Your task to perform on an android device: Open CNN.com Image 0: 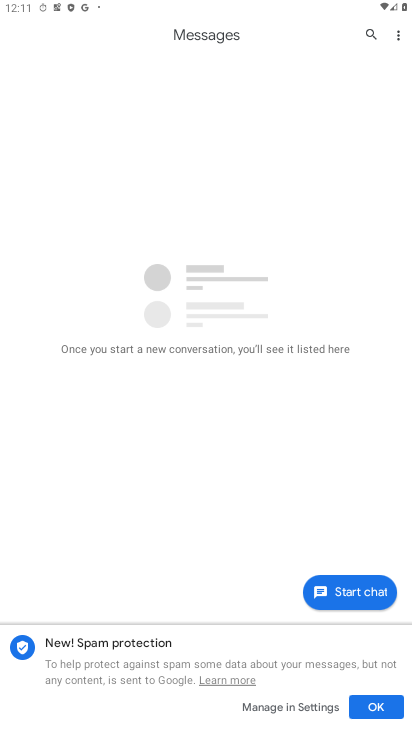
Step 0: press home button
Your task to perform on an android device: Open CNN.com Image 1: 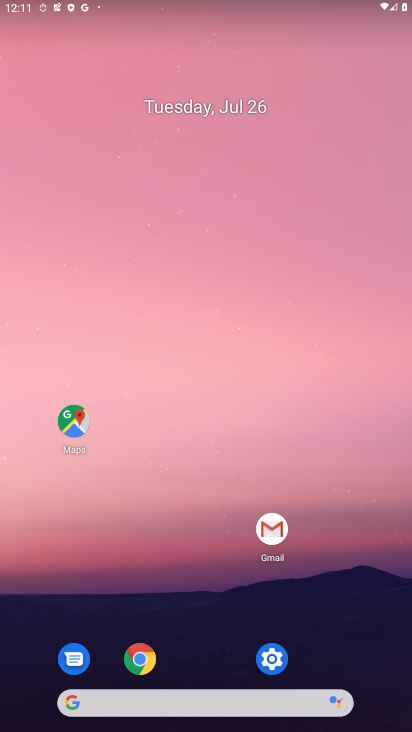
Step 1: click (185, 702)
Your task to perform on an android device: Open CNN.com Image 2: 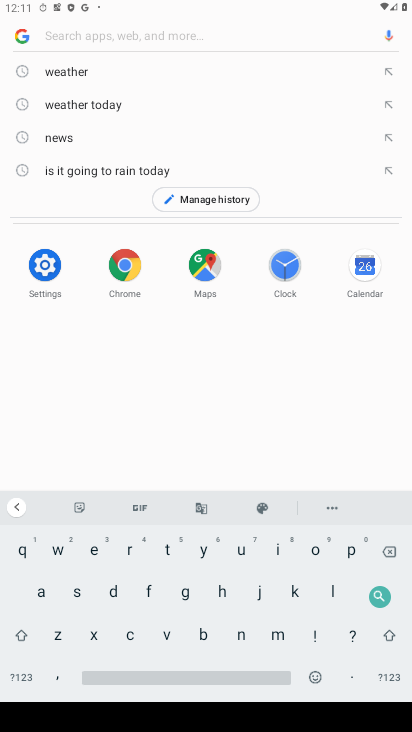
Step 2: click (119, 633)
Your task to perform on an android device: Open CNN.com Image 3: 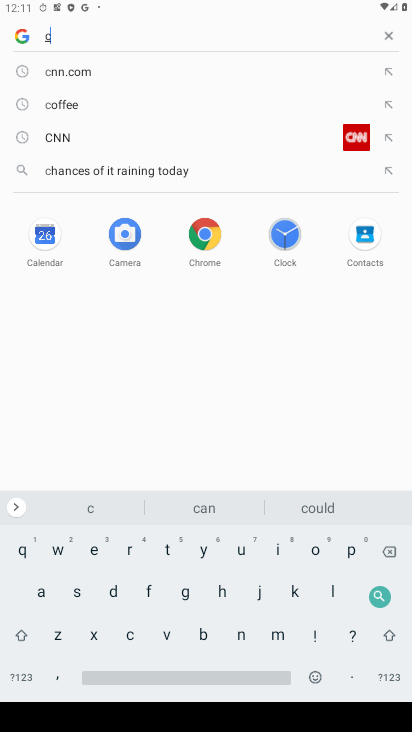
Step 3: click (84, 75)
Your task to perform on an android device: Open CNN.com Image 4: 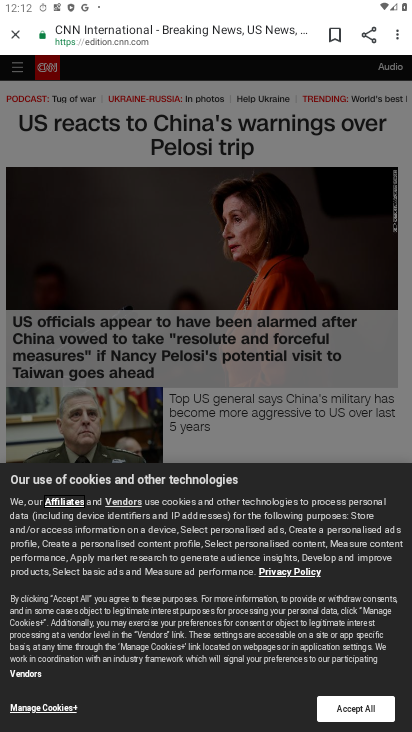
Step 4: task complete